Your task to perform on an android device: Open internet settings Image 0: 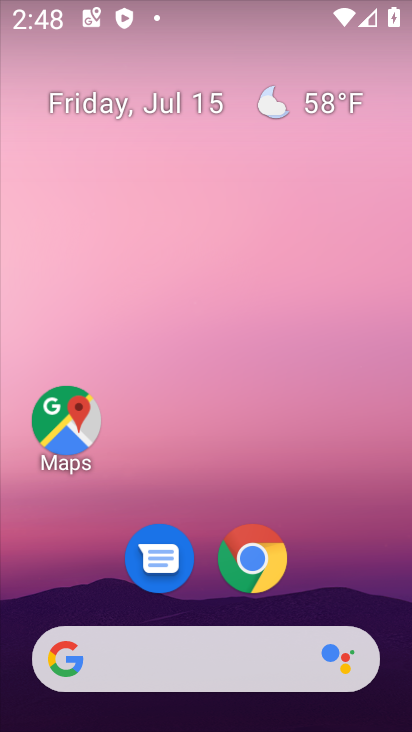
Step 0: drag from (371, 597) to (365, 132)
Your task to perform on an android device: Open internet settings Image 1: 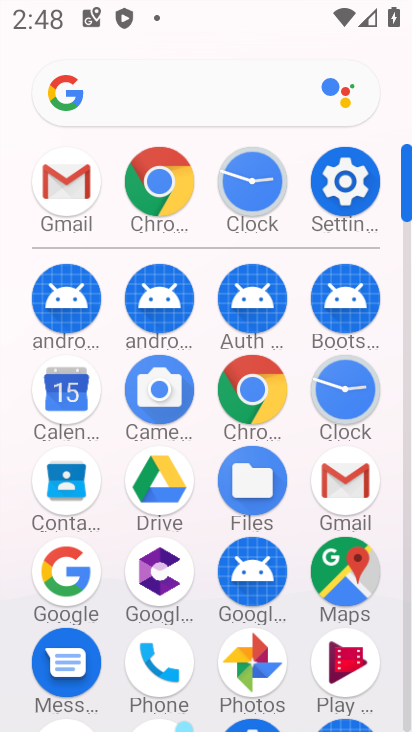
Step 1: click (358, 201)
Your task to perform on an android device: Open internet settings Image 2: 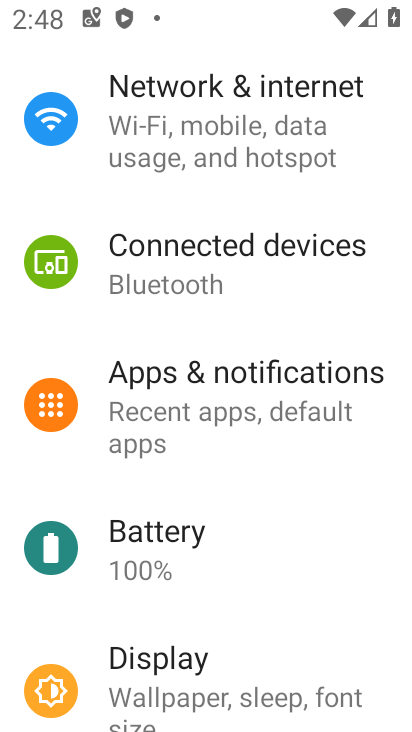
Step 2: drag from (384, 305) to (392, 393)
Your task to perform on an android device: Open internet settings Image 3: 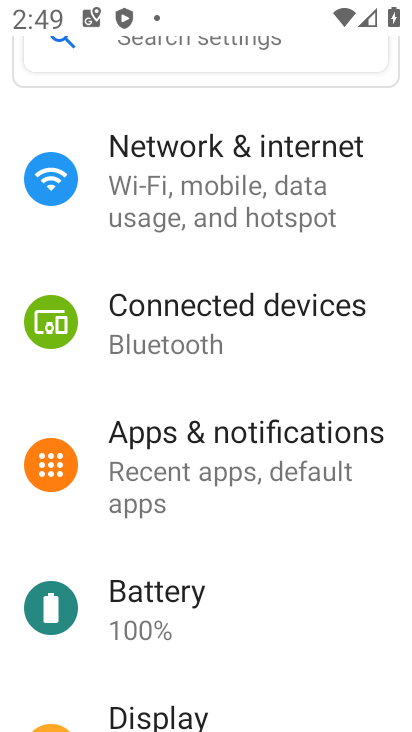
Step 3: drag from (382, 259) to (372, 391)
Your task to perform on an android device: Open internet settings Image 4: 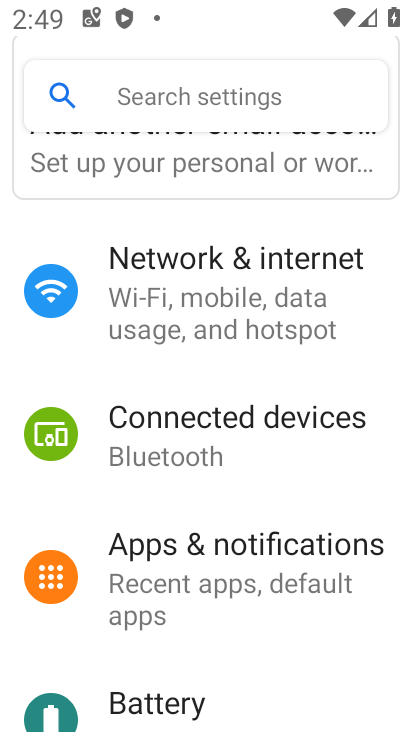
Step 4: click (341, 310)
Your task to perform on an android device: Open internet settings Image 5: 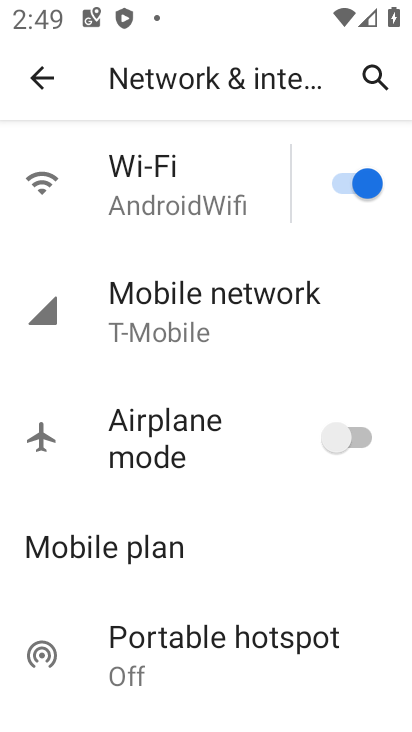
Step 5: task complete